Your task to perform on an android device: Is it going to rain this weekend? Image 0: 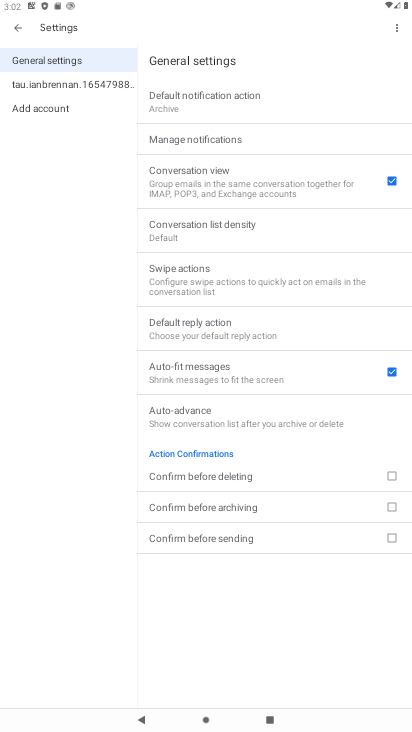
Step 0: drag from (211, 693) to (211, 212)
Your task to perform on an android device: Is it going to rain this weekend? Image 1: 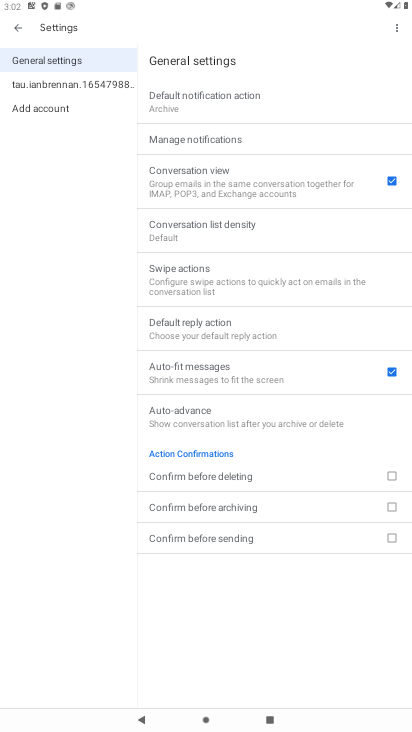
Step 1: press home button
Your task to perform on an android device: Is it going to rain this weekend? Image 2: 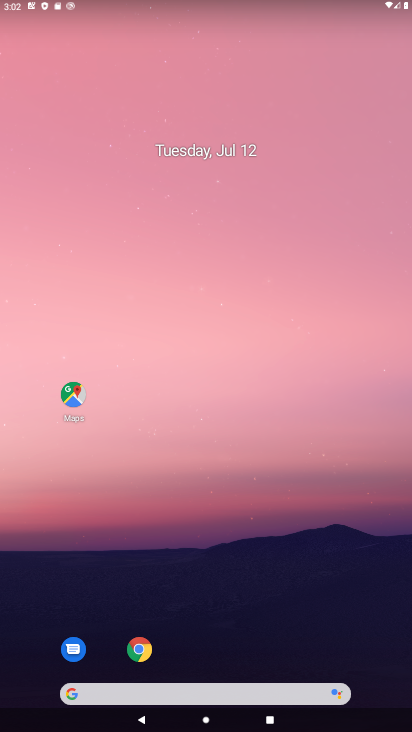
Step 2: click (136, 650)
Your task to perform on an android device: Is it going to rain this weekend? Image 3: 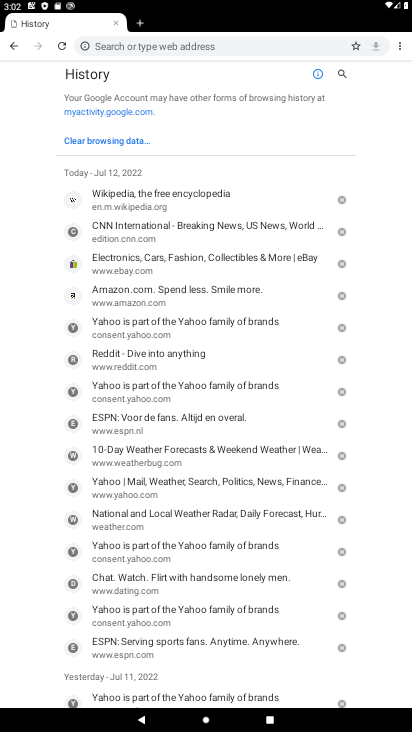
Step 3: click (193, 46)
Your task to perform on an android device: Is it going to rain this weekend? Image 4: 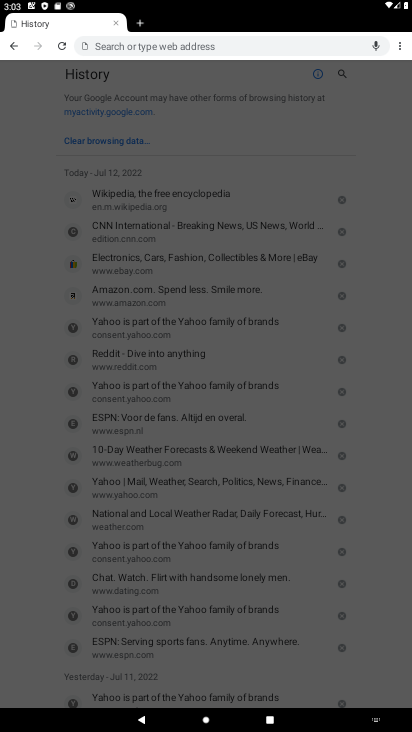
Step 4: type "Is it going to rain this weekend?"
Your task to perform on an android device: Is it going to rain this weekend? Image 5: 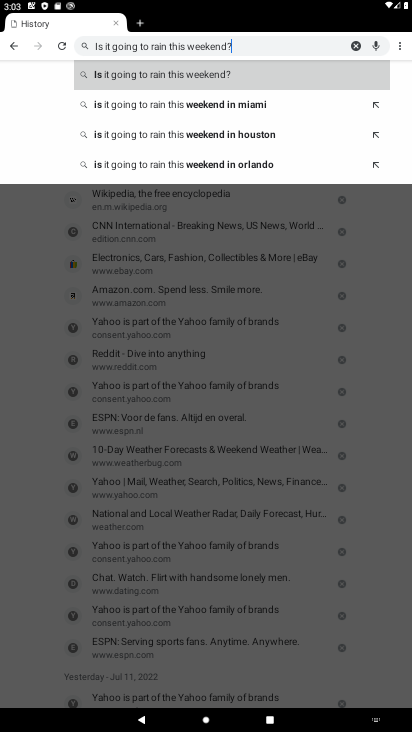
Step 5: click (219, 77)
Your task to perform on an android device: Is it going to rain this weekend? Image 6: 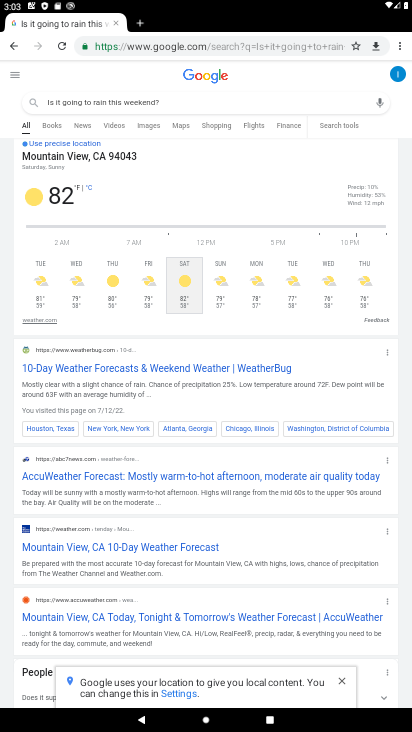
Step 6: task complete